Your task to perform on an android device: When is my next appointment? Image 0: 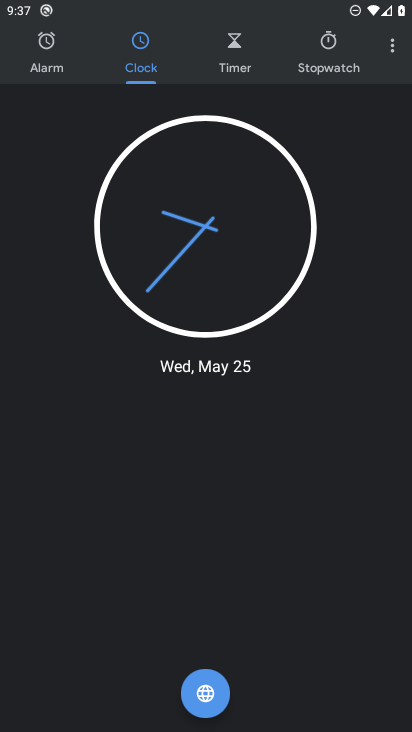
Step 0: press home button
Your task to perform on an android device: When is my next appointment? Image 1: 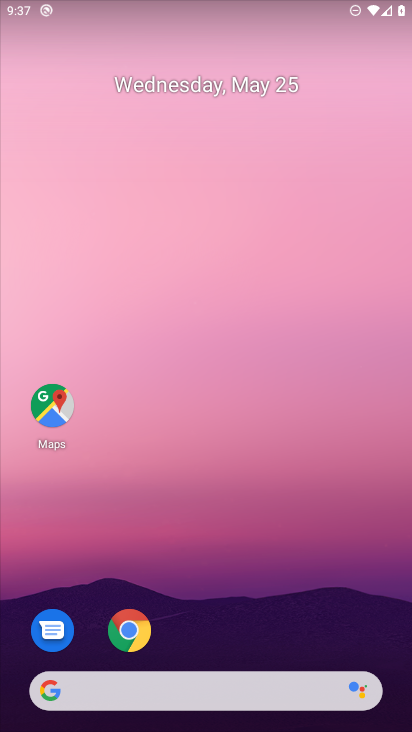
Step 1: drag from (217, 667) to (201, 199)
Your task to perform on an android device: When is my next appointment? Image 2: 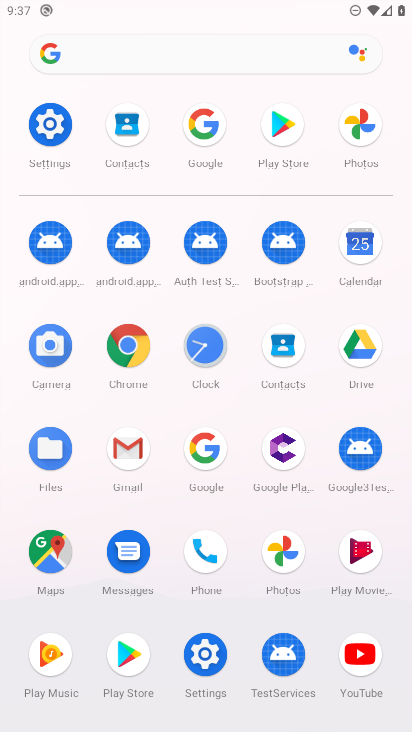
Step 2: click (354, 249)
Your task to perform on an android device: When is my next appointment? Image 3: 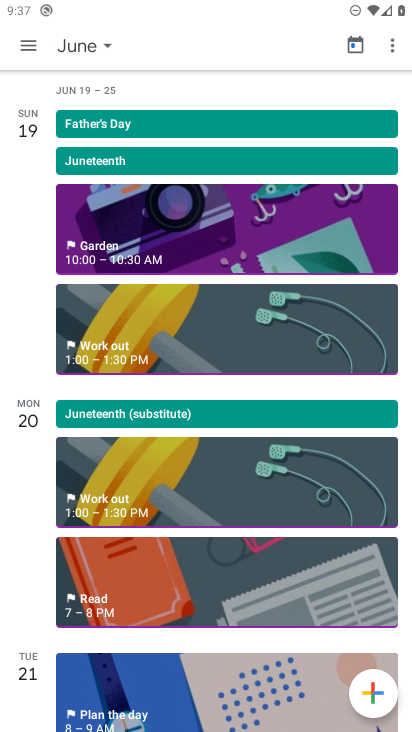
Step 3: click (93, 49)
Your task to perform on an android device: When is my next appointment? Image 4: 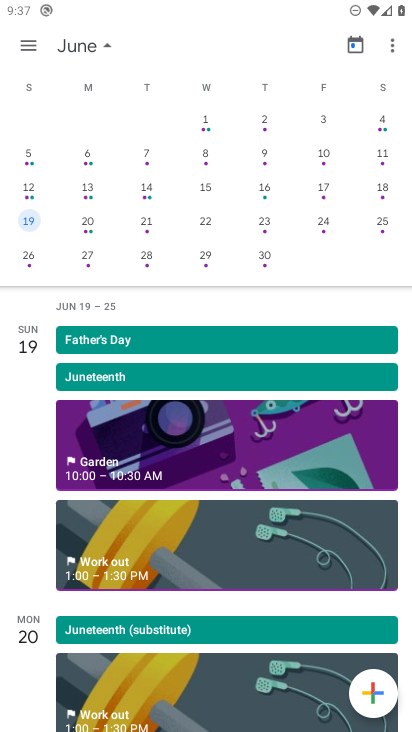
Step 4: drag from (67, 160) to (381, 204)
Your task to perform on an android device: When is my next appointment? Image 5: 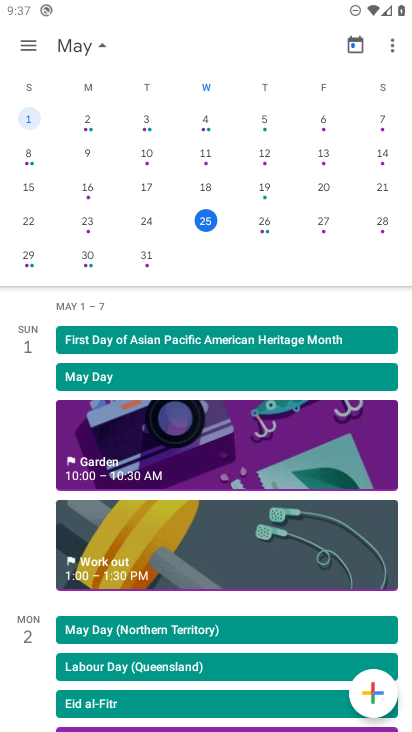
Step 5: click (266, 220)
Your task to perform on an android device: When is my next appointment? Image 6: 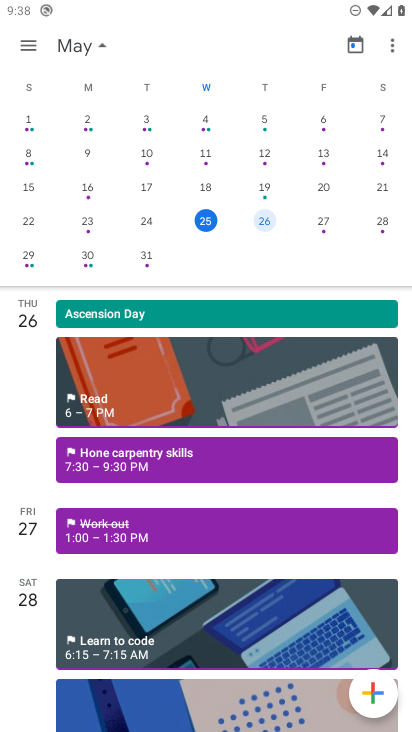
Step 6: task complete